Your task to perform on an android device: check data usage Image 0: 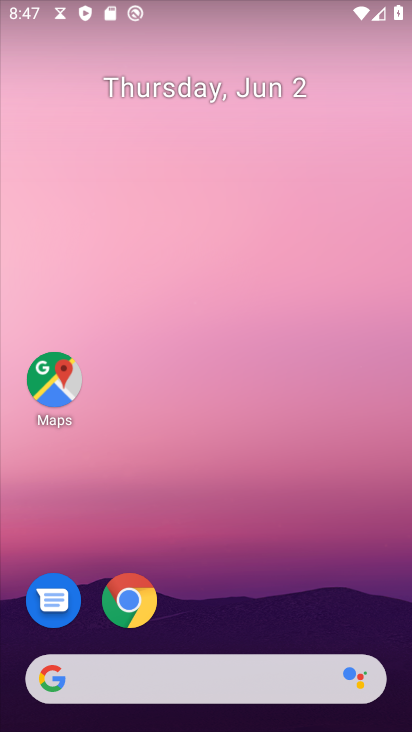
Step 0: drag from (199, 516) to (232, 43)
Your task to perform on an android device: check data usage Image 1: 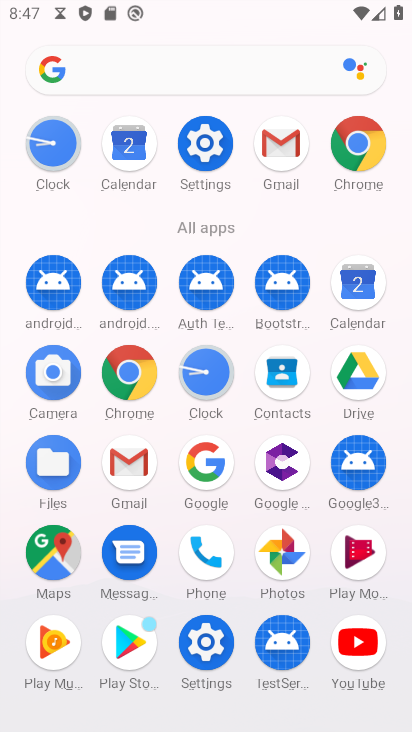
Step 1: click (204, 131)
Your task to perform on an android device: check data usage Image 2: 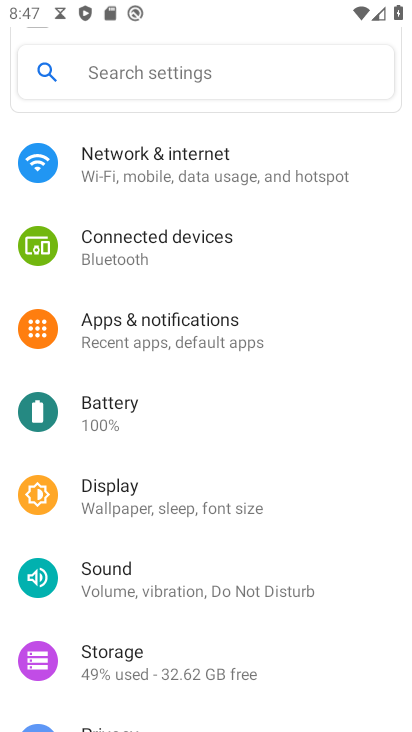
Step 2: click (234, 173)
Your task to perform on an android device: check data usage Image 3: 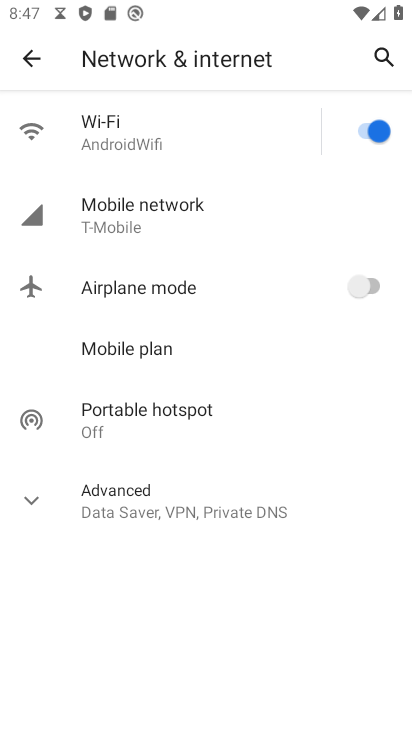
Step 3: click (201, 206)
Your task to perform on an android device: check data usage Image 4: 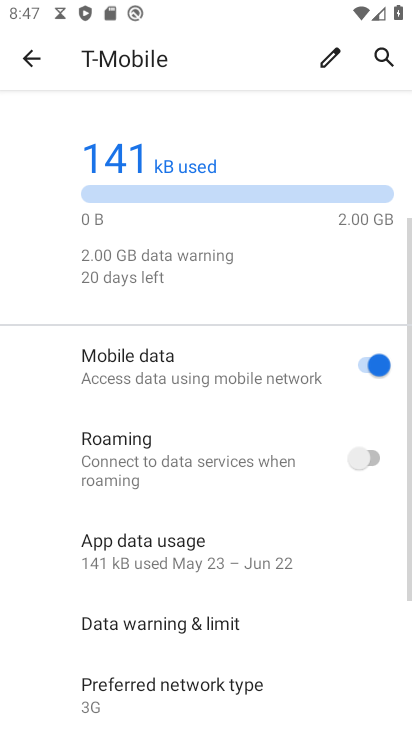
Step 4: task complete